Your task to perform on an android device: search for accent chairs on article.com Image 0: 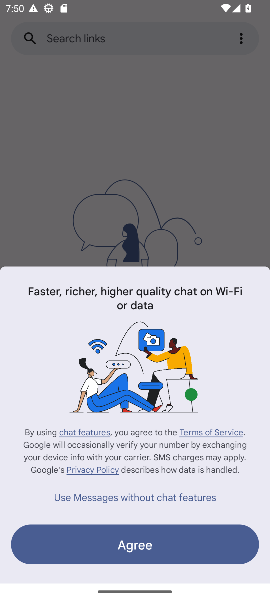
Step 0: press home button
Your task to perform on an android device: search for accent chairs on article.com Image 1: 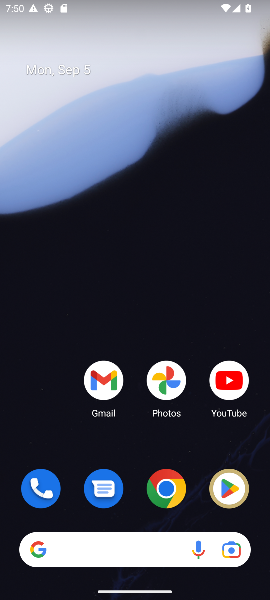
Step 1: click (179, 494)
Your task to perform on an android device: search for accent chairs on article.com Image 2: 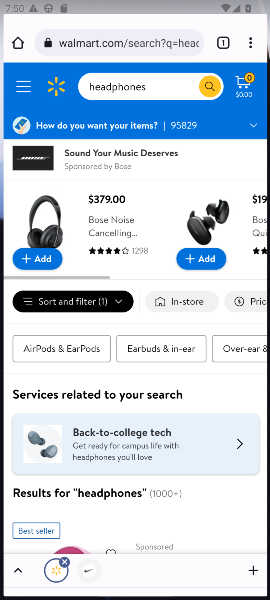
Step 2: click (135, 49)
Your task to perform on an android device: search for accent chairs on article.com Image 3: 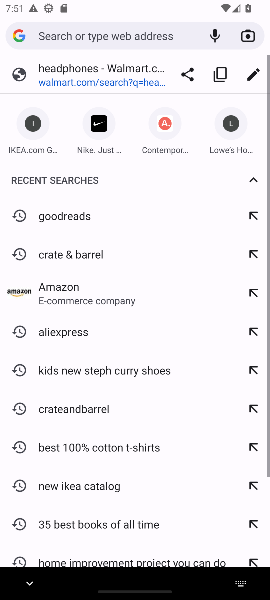
Step 3: press enter
Your task to perform on an android device: search for accent chairs on article.com Image 4: 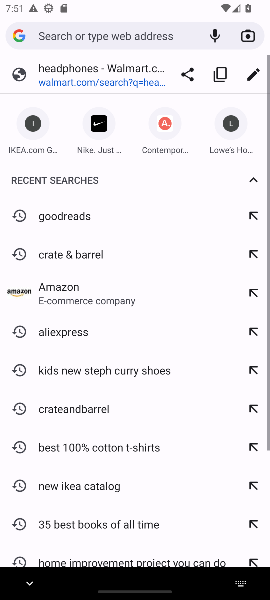
Step 4: type "article.com"
Your task to perform on an android device: search for accent chairs on article.com Image 5: 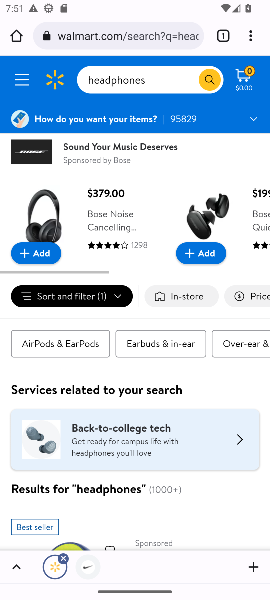
Step 5: click (88, 32)
Your task to perform on an android device: search for accent chairs on article.com Image 6: 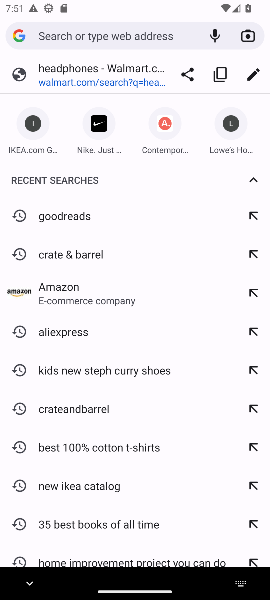
Step 6: type "article.com"
Your task to perform on an android device: search for accent chairs on article.com Image 7: 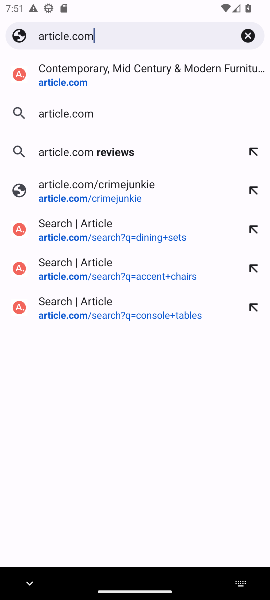
Step 7: press enter
Your task to perform on an android device: search for accent chairs on article.com Image 8: 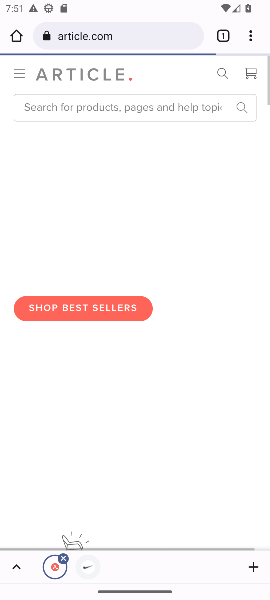
Step 8: drag from (146, 324) to (159, 352)
Your task to perform on an android device: search for accent chairs on article.com Image 9: 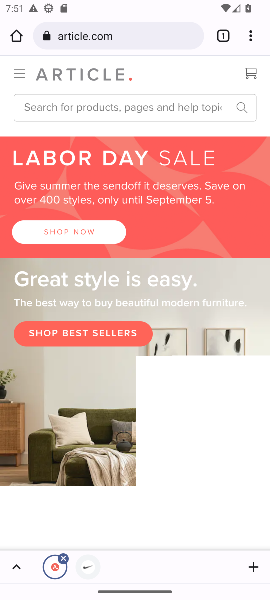
Step 9: click (180, 104)
Your task to perform on an android device: search for accent chairs on article.com Image 10: 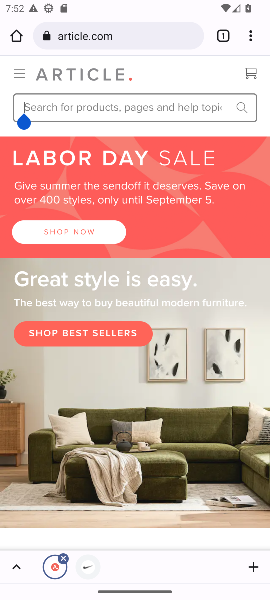
Step 10: type "accent chairs"
Your task to perform on an android device: search for accent chairs on article.com Image 11: 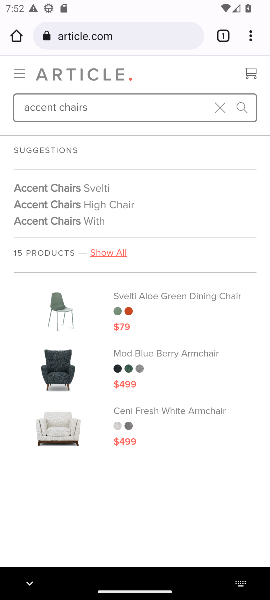
Step 11: click (190, 376)
Your task to perform on an android device: search for accent chairs on article.com Image 12: 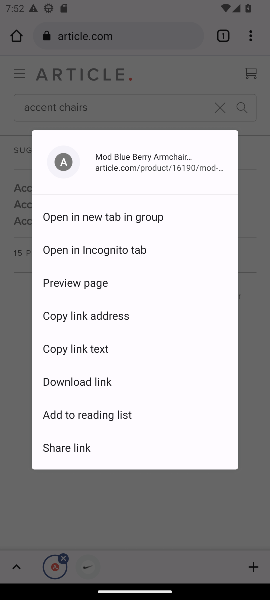
Step 12: click (250, 470)
Your task to perform on an android device: search for accent chairs on article.com Image 13: 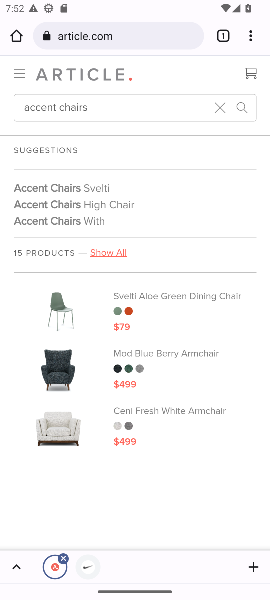
Step 13: task complete